Your task to perform on an android device: allow notifications from all sites in the chrome app Image 0: 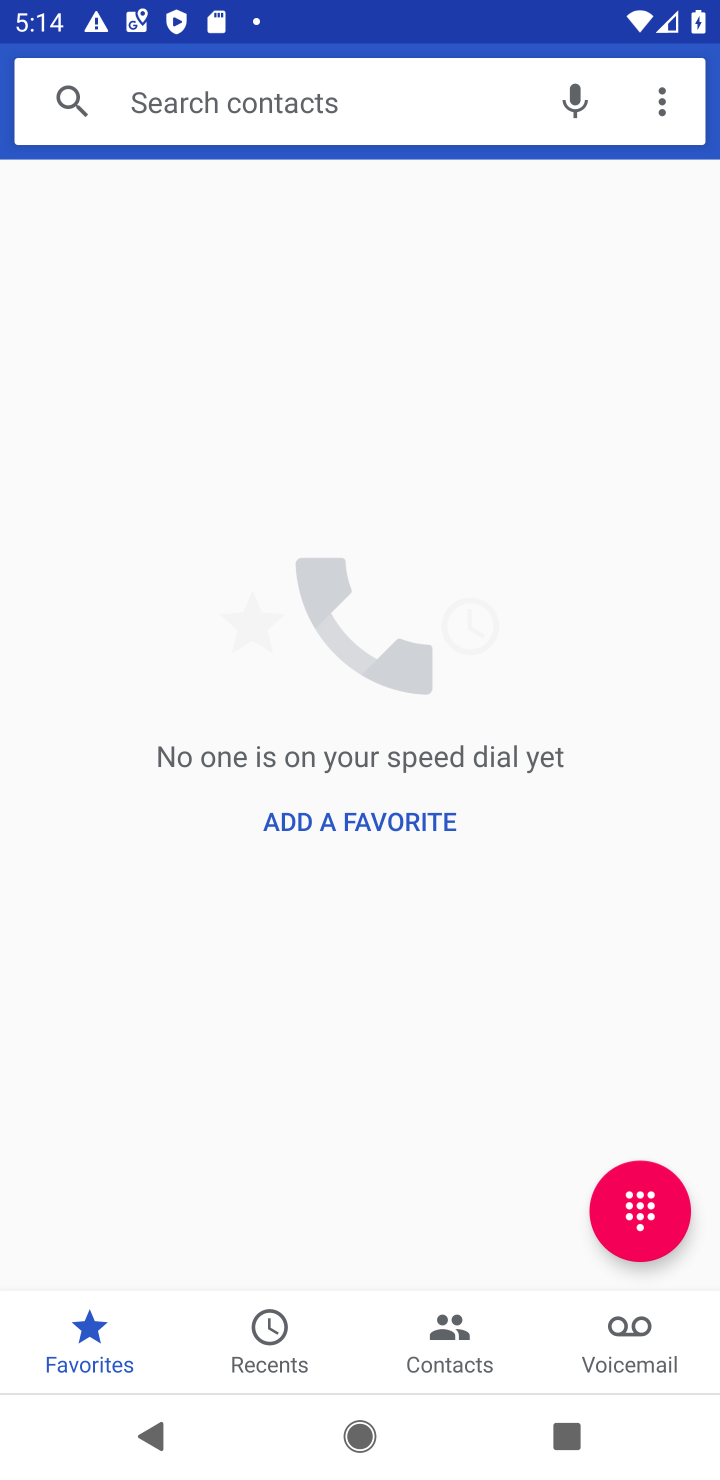
Step 0: press home button
Your task to perform on an android device: allow notifications from all sites in the chrome app Image 1: 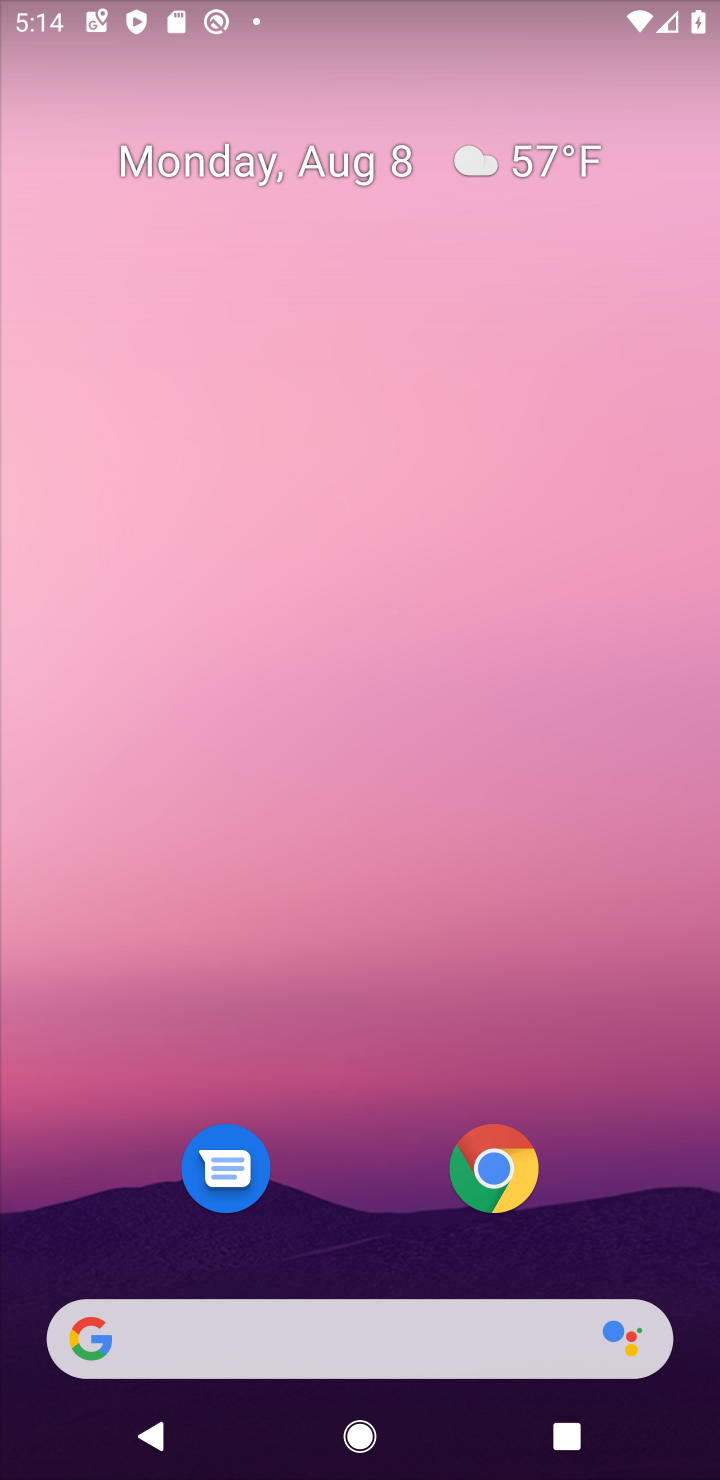
Step 1: click (479, 1186)
Your task to perform on an android device: allow notifications from all sites in the chrome app Image 2: 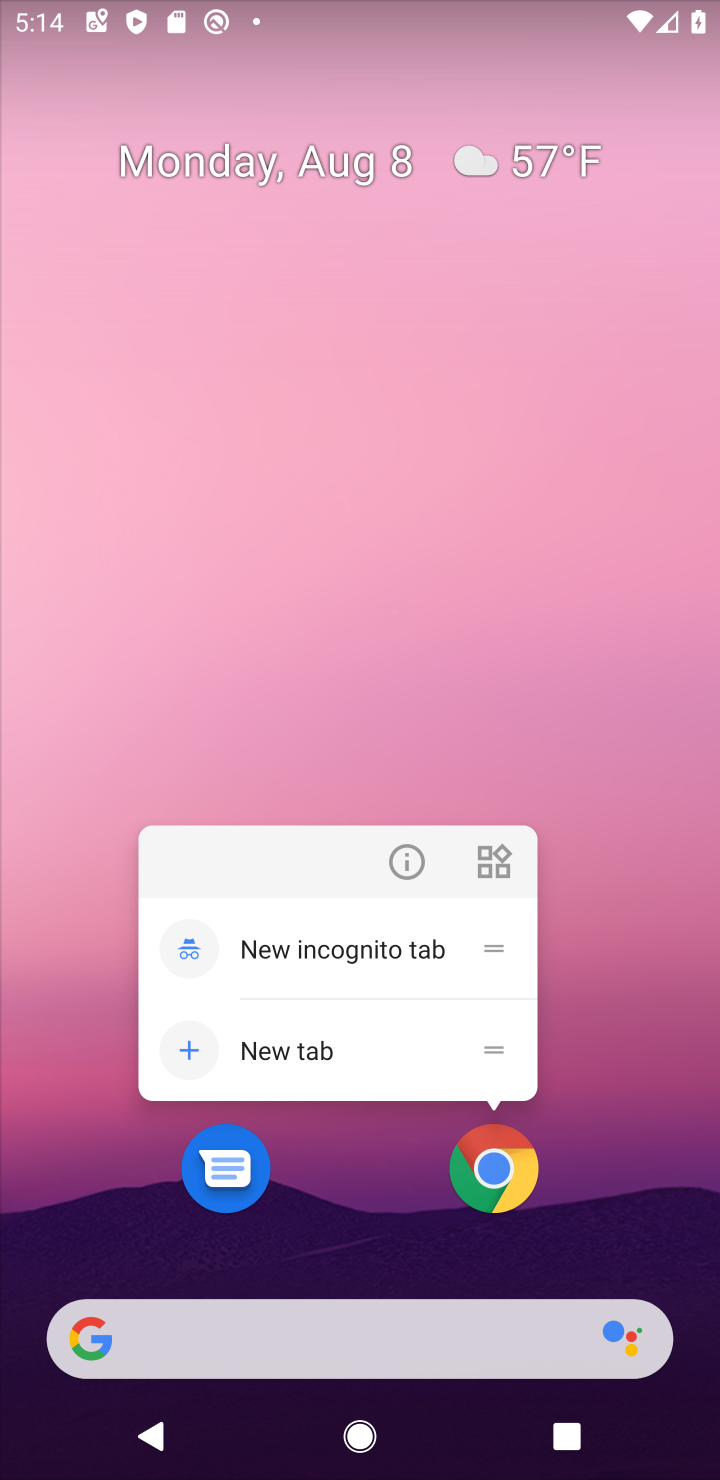
Step 2: click (498, 1181)
Your task to perform on an android device: allow notifications from all sites in the chrome app Image 3: 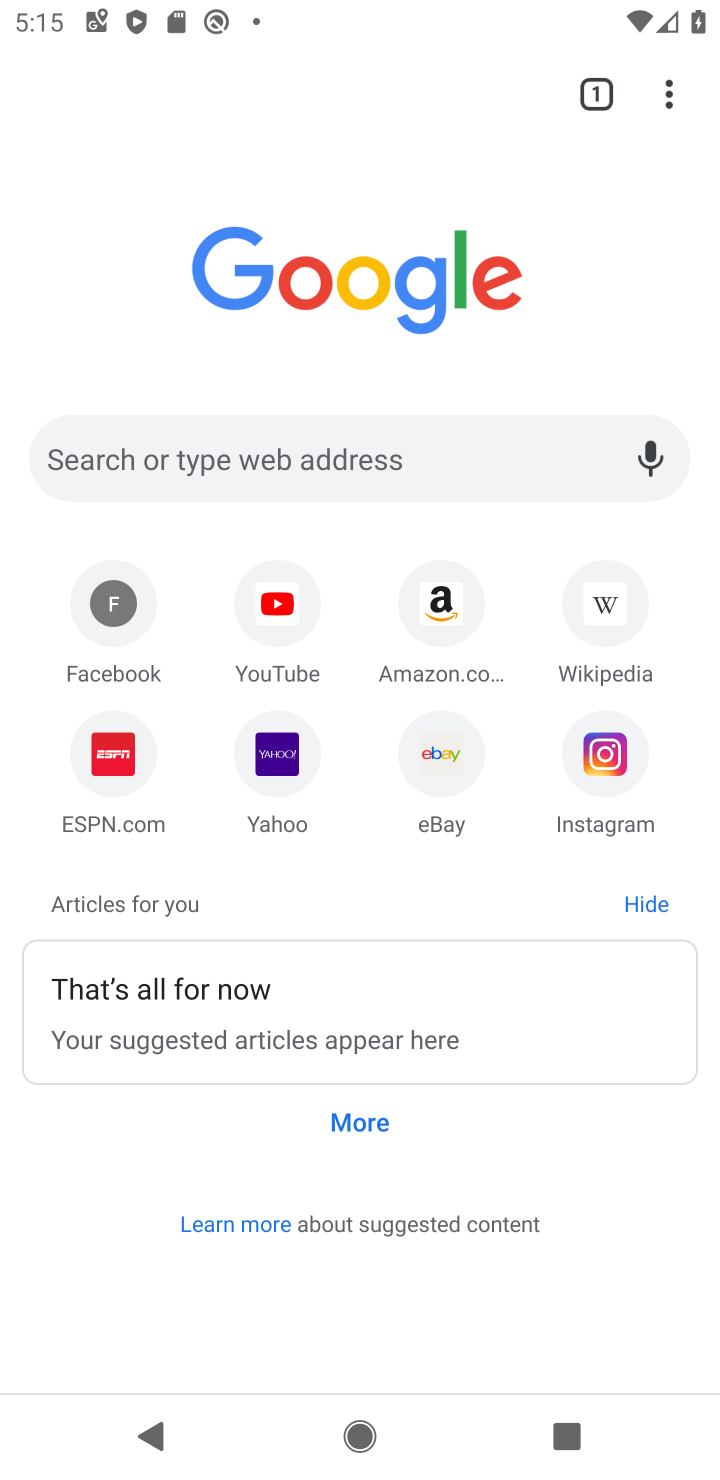
Step 3: drag from (663, 94) to (352, 874)
Your task to perform on an android device: allow notifications from all sites in the chrome app Image 4: 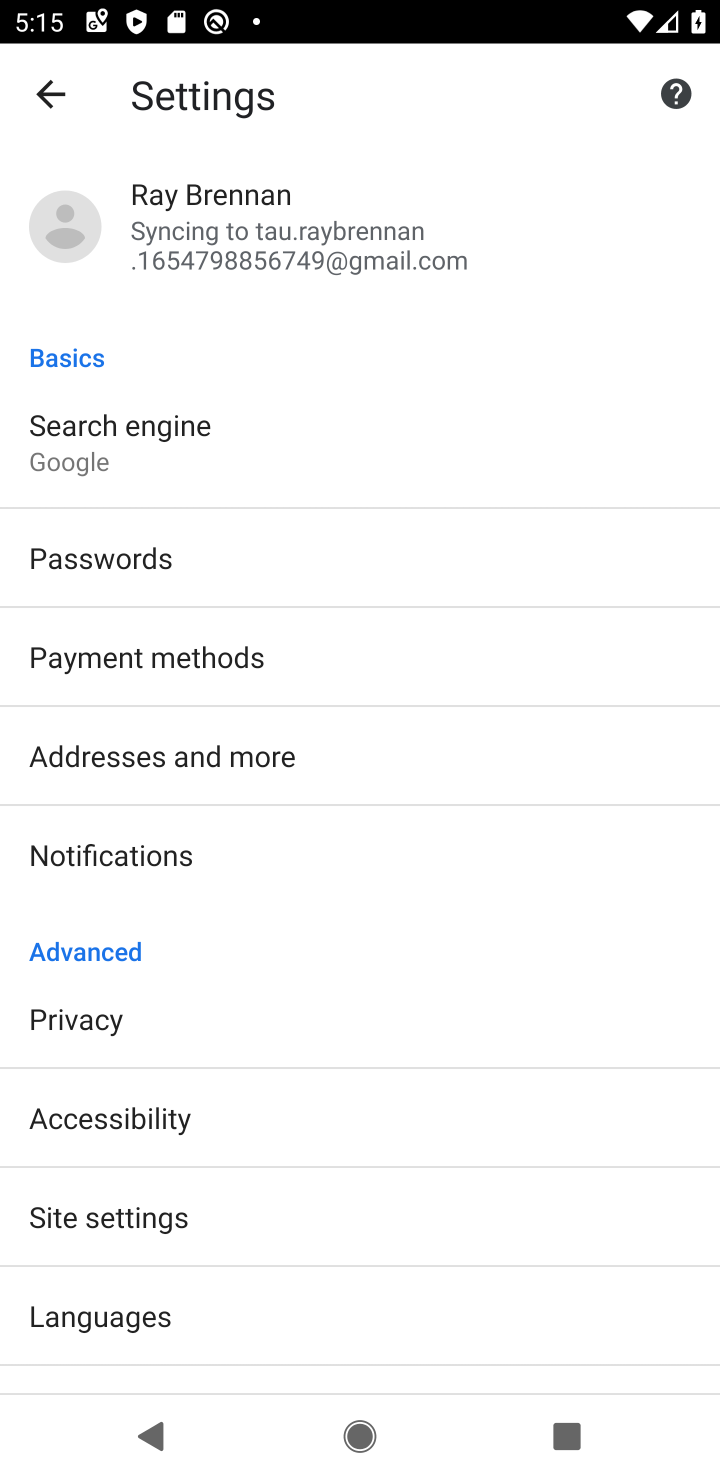
Step 4: click (186, 1215)
Your task to perform on an android device: allow notifications from all sites in the chrome app Image 5: 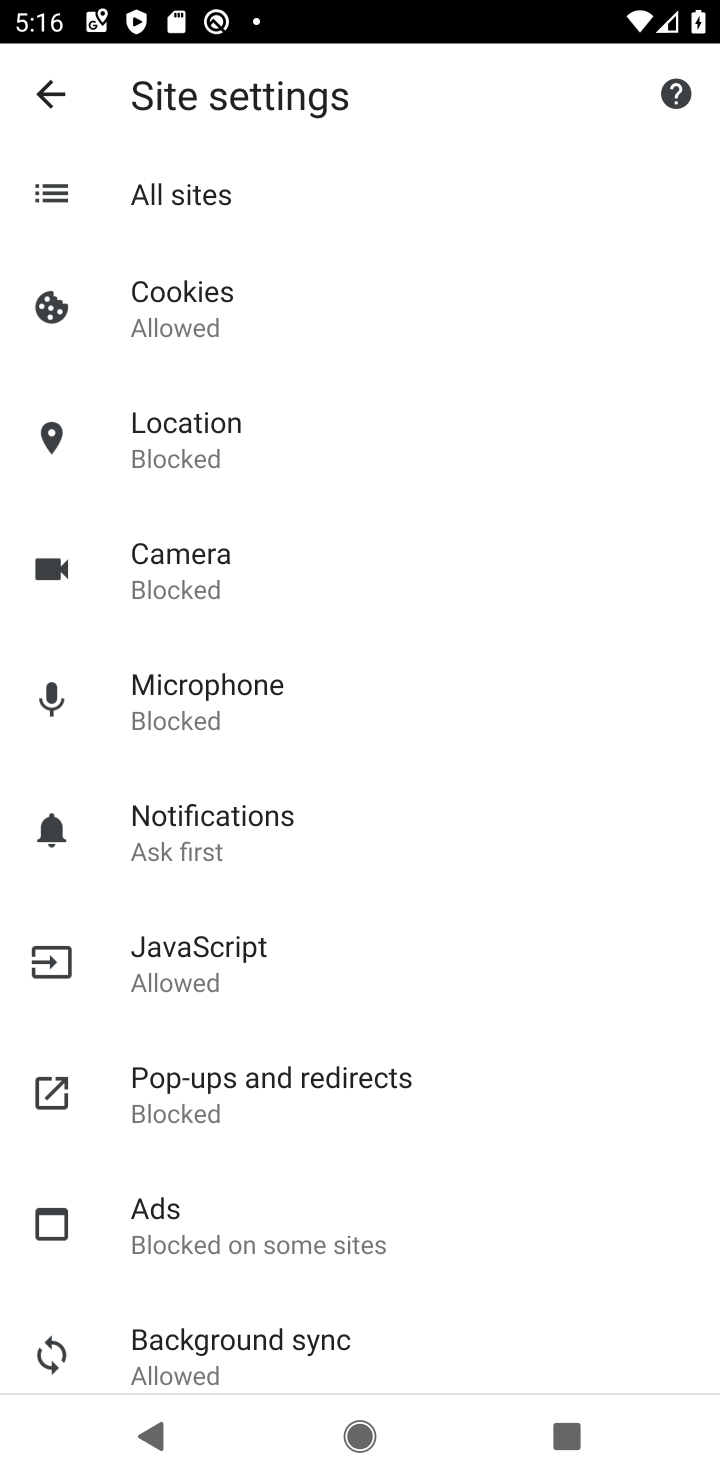
Step 5: click (196, 811)
Your task to perform on an android device: allow notifications from all sites in the chrome app Image 6: 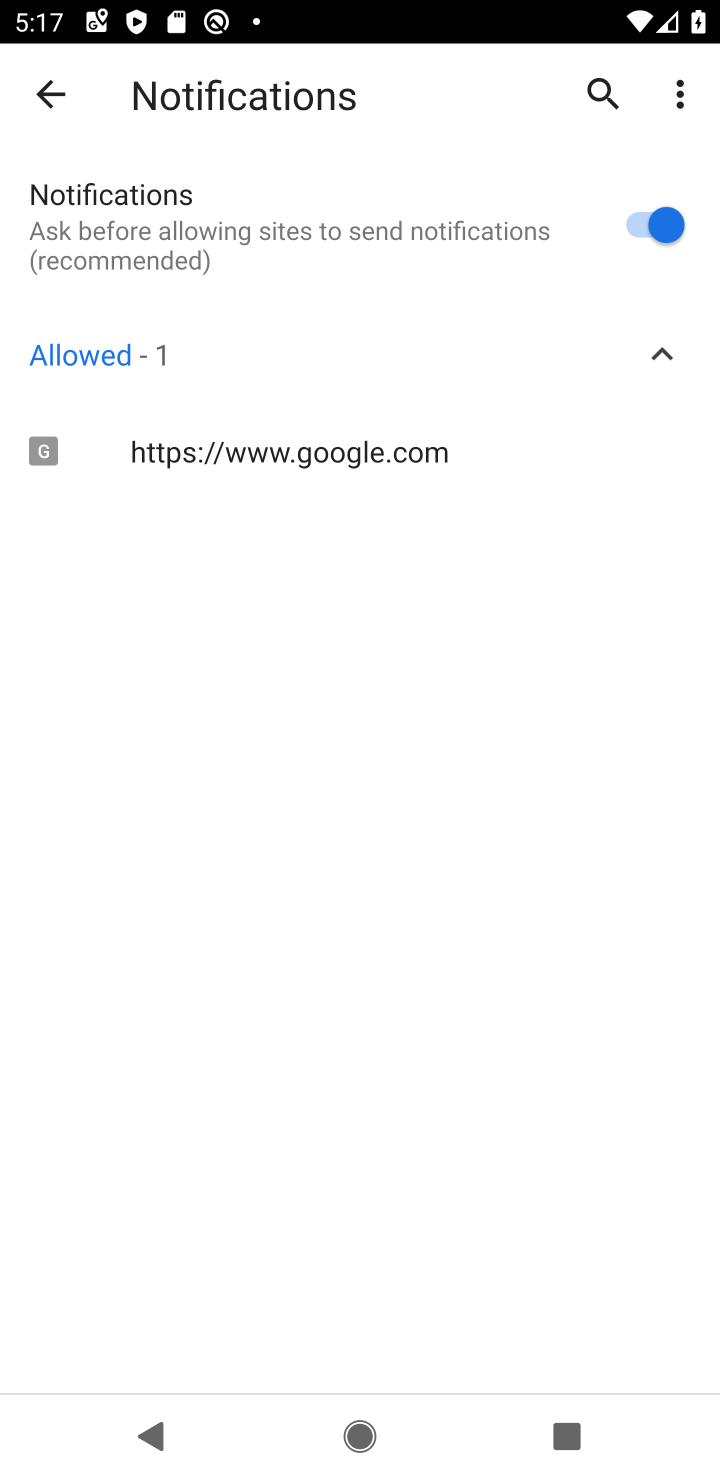
Step 6: task complete